Your task to perform on an android device: set the timer Image 0: 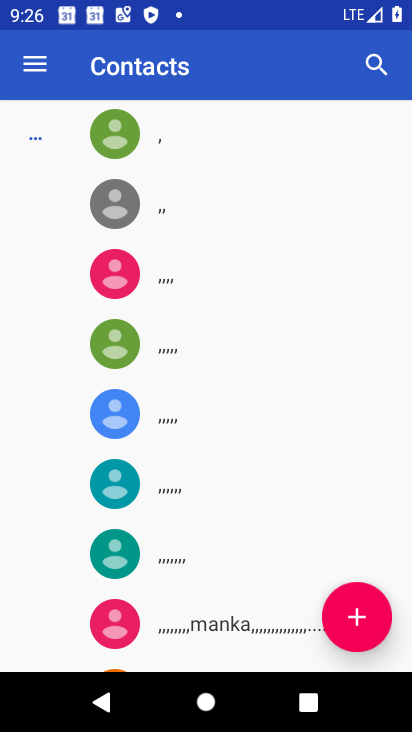
Step 0: press home button
Your task to perform on an android device: set the timer Image 1: 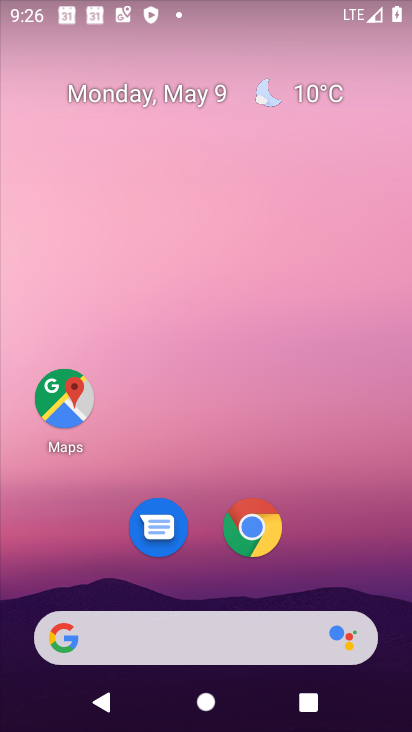
Step 1: drag from (210, 588) to (243, 253)
Your task to perform on an android device: set the timer Image 2: 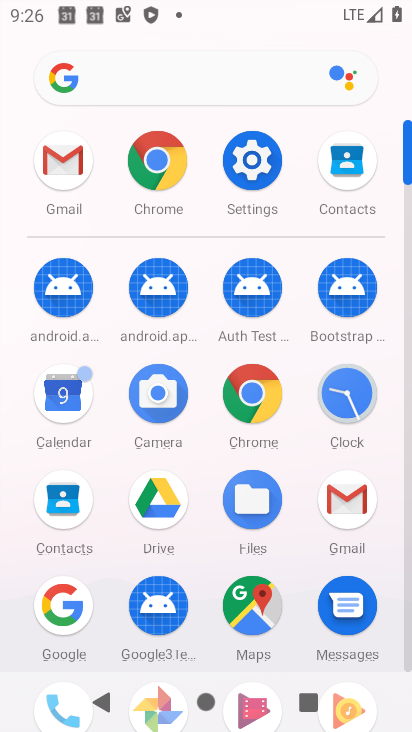
Step 2: click (346, 408)
Your task to perform on an android device: set the timer Image 3: 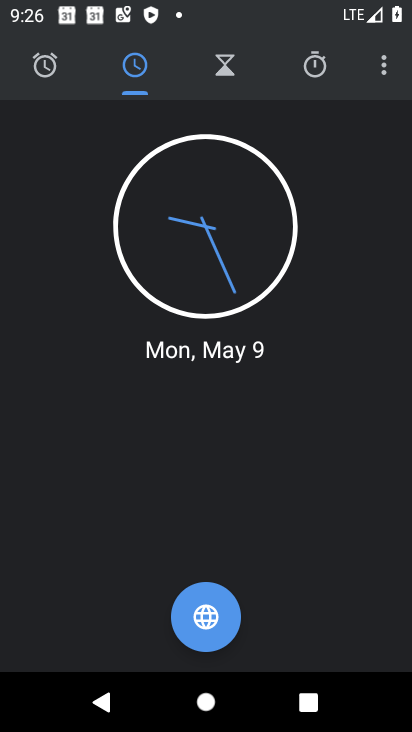
Step 3: click (387, 63)
Your task to perform on an android device: set the timer Image 4: 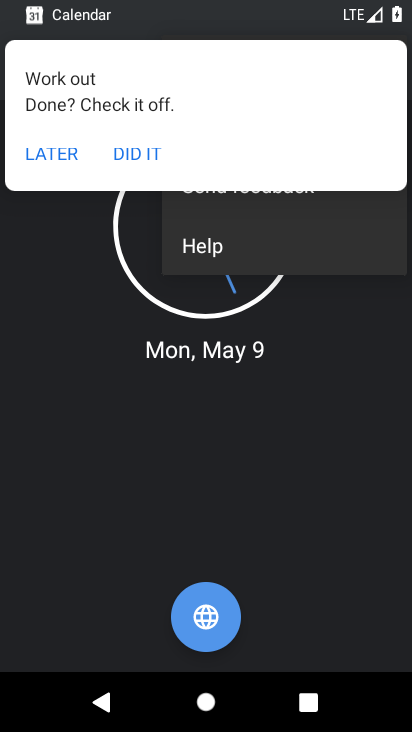
Step 4: click (55, 284)
Your task to perform on an android device: set the timer Image 5: 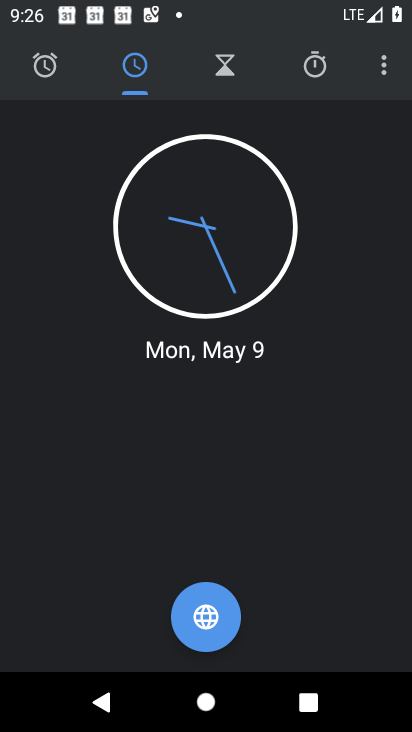
Step 5: click (238, 57)
Your task to perform on an android device: set the timer Image 6: 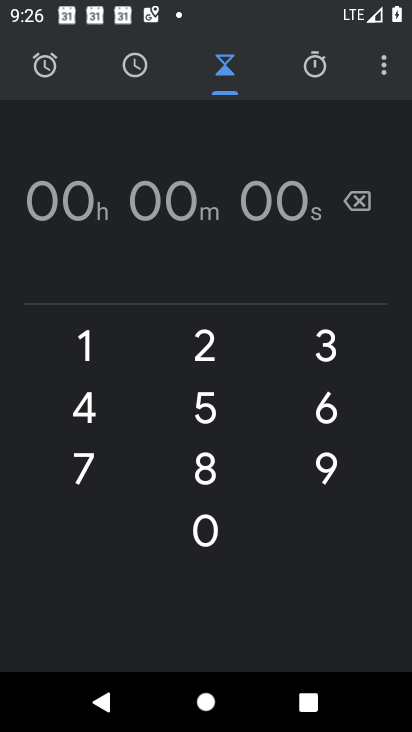
Step 6: click (331, 473)
Your task to perform on an android device: set the timer Image 7: 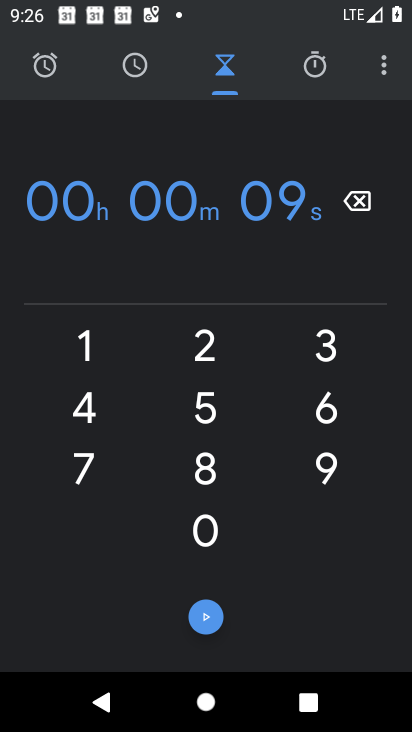
Step 7: click (202, 409)
Your task to perform on an android device: set the timer Image 8: 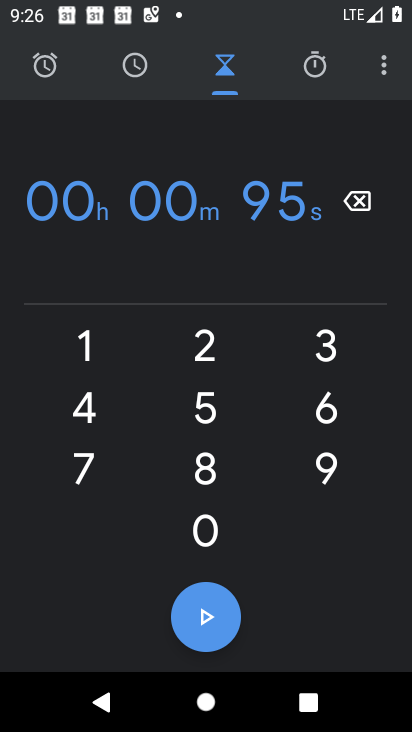
Step 8: click (195, 463)
Your task to perform on an android device: set the timer Image 9: 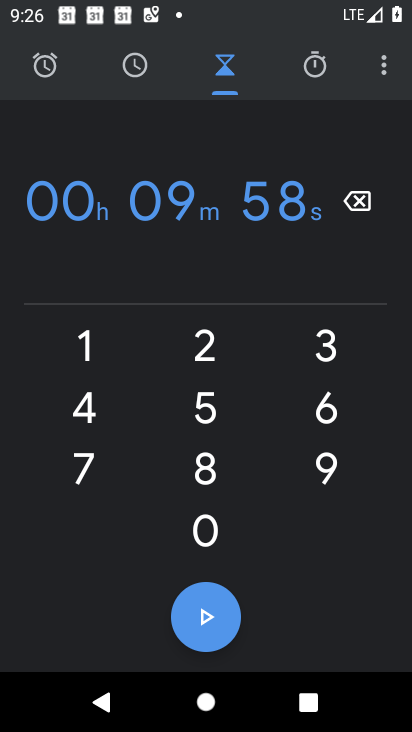
Step 9: click (212, 636)
Your task to perform on an android device: set the timer Image 10: 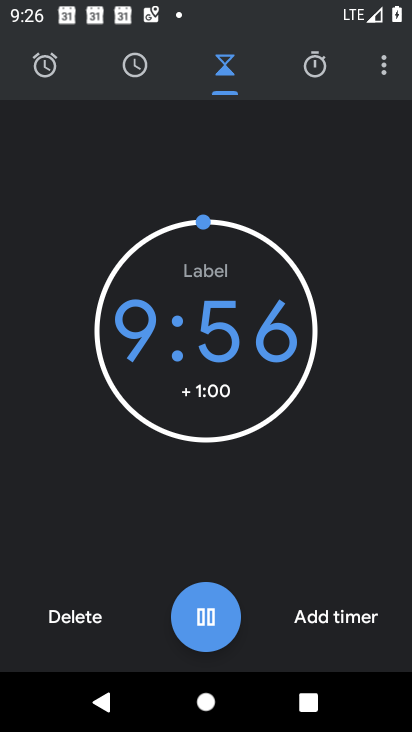
Step 10: task complete